Your task to perform on an android device: Show me the alarms in the clock app Image 0: 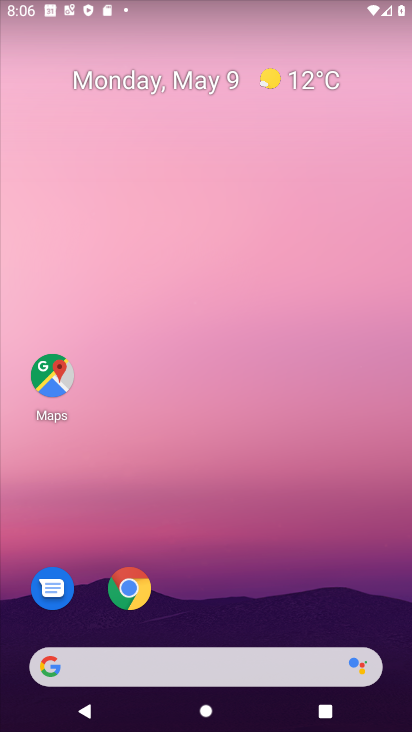
Step 0: press home button
Your task to perform on an android device: Show me the alarms in the clock app Image 1: 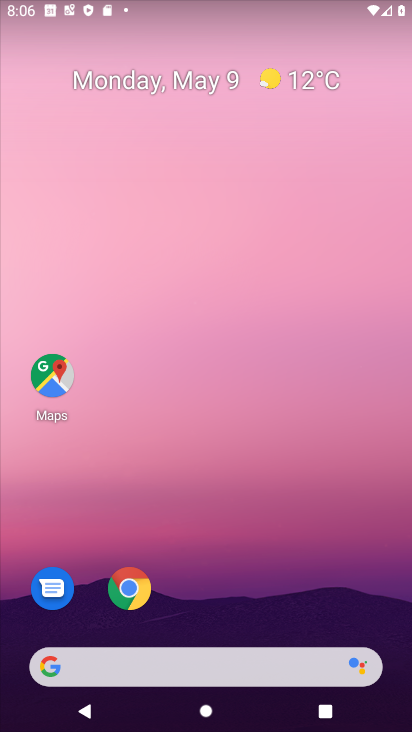
Step 1: drag from (152, 662) to (306, 15)
Your task to perform on an android device: Show me the alarms in the clock app Image 2: 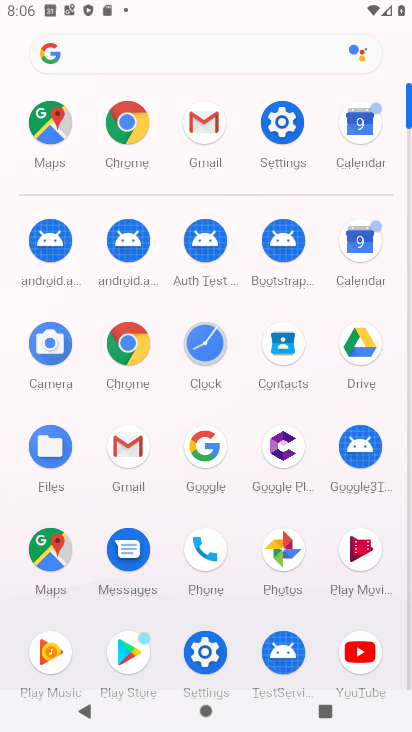
Step 2: click (204, 348)
Your task to perform on an android device: Show me the alarms in the clock app Image 3: 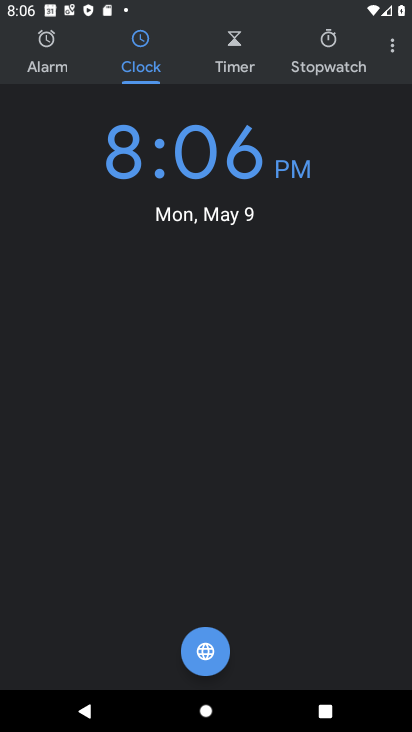
Step 3: click (44, 60)
Your task to perform on an android device: Show me the alarms in the clock app Image 4: 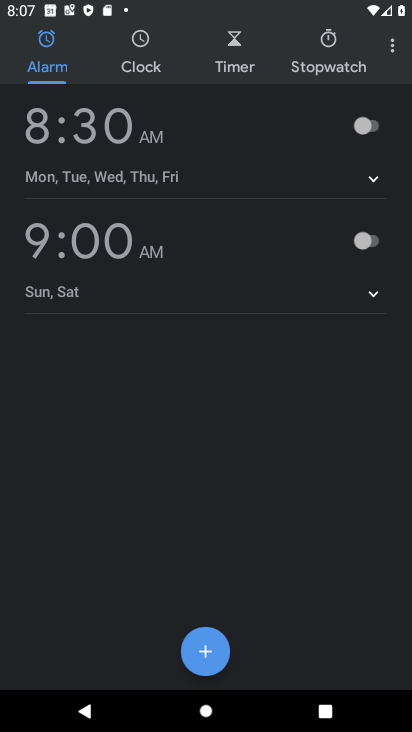
Step 4: task complete